Your task to perform on an android device: Search for vegetarian restaurants on Maps Image 0: 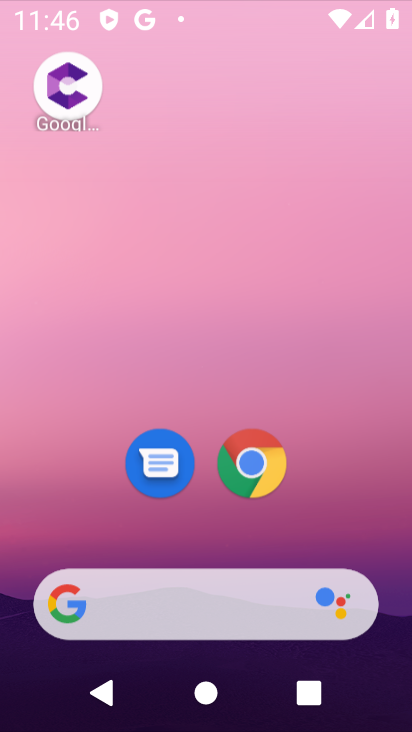
Step 0: drag from (227, 71) to (236, 23)
Your task to perform on an android device: Search for vegetarian restaurants on Maps Image 1: 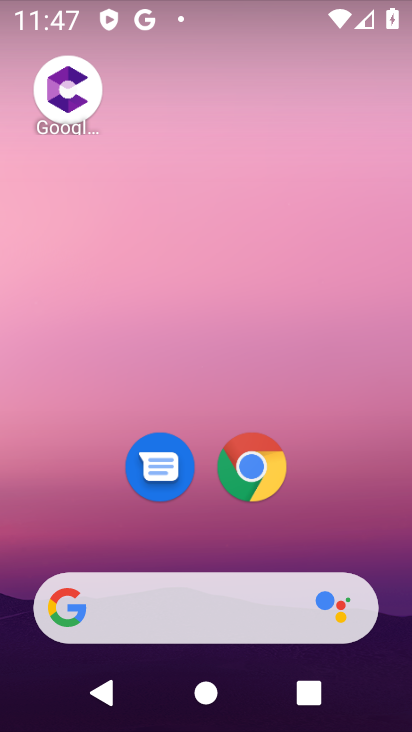
Step 1: drag from (86, 352) to (381, 451)
Your task to perform on an android device: Search for vegetarian restaurants on Maps Image 2: 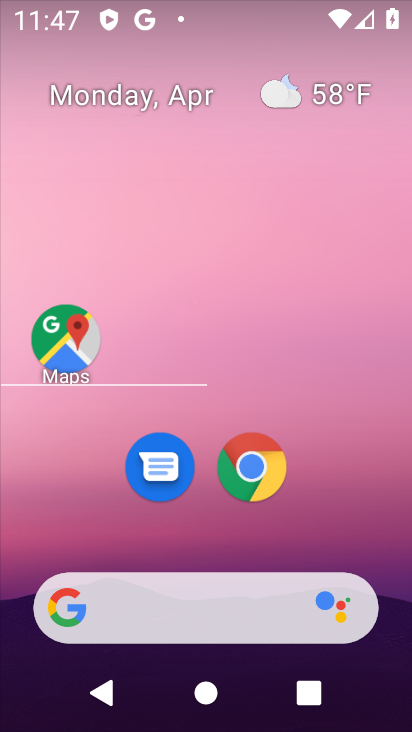
Step 2: drag from (59, 348) to (364, 450)
Your task to perform on an android device: Search for vegetarian restaurants on Maps Image 3: 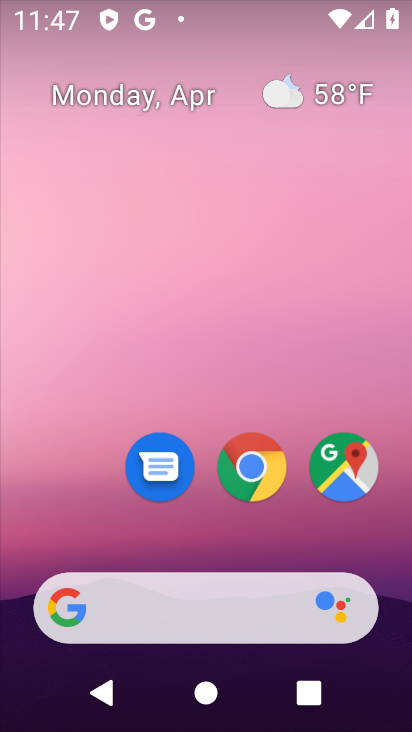
Step 3: drag from (26, 386) to (272, 337)
Your task to perform on an android device: Search for vegetarian restaurants on Maps Image 4: 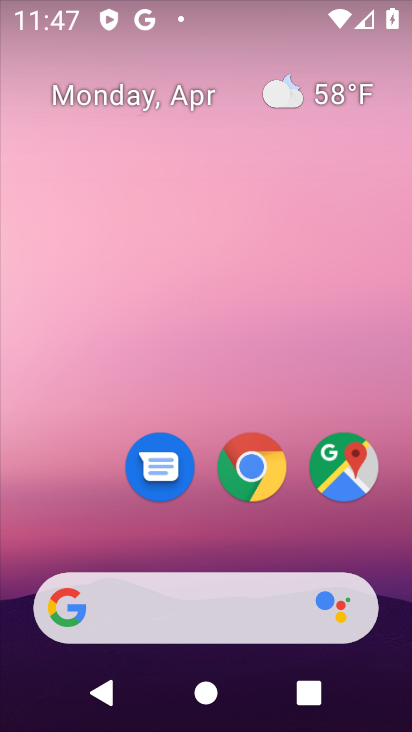
Step 4: click (335, 461)
Your task to perform on an android device: Search for vegetarian restaurants on Maps Image 5: 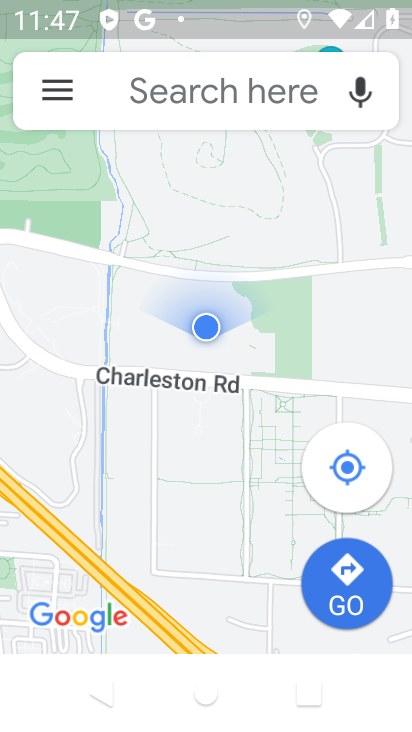
Step 5: click (210, 79)
Your task to perform on an android device: Search for vegetarian restaurants on Maps Image 6: 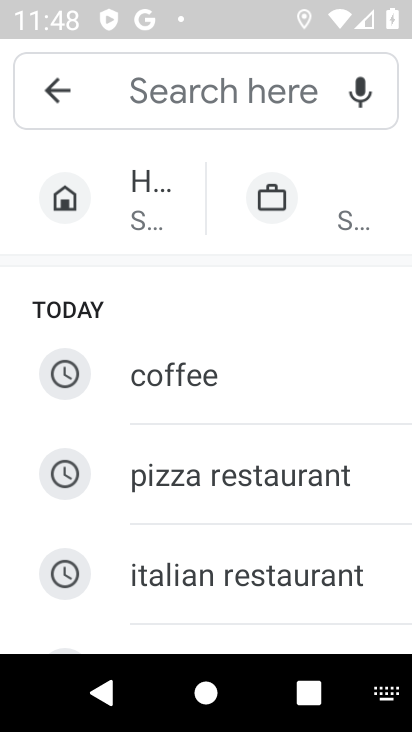
Step 6: type "vegetarian restaurant"
Your task to perform on an android device: Search for vegetarian restaurants on Maps Image 7: 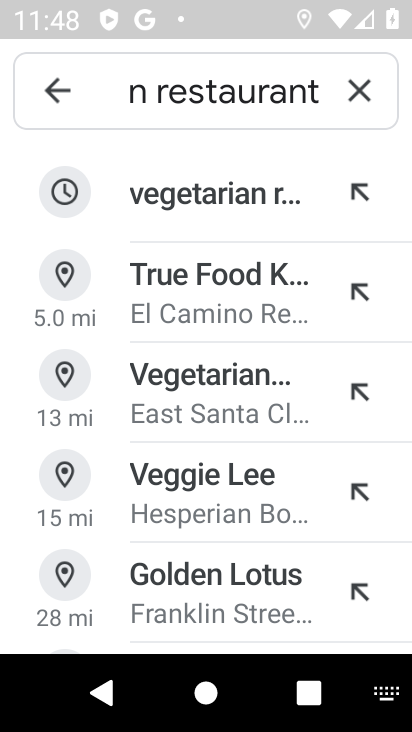
Step 7: click (196, 225)
Your task to perform on an android device: Search for vegetarian restaurants on Maps Image 8: 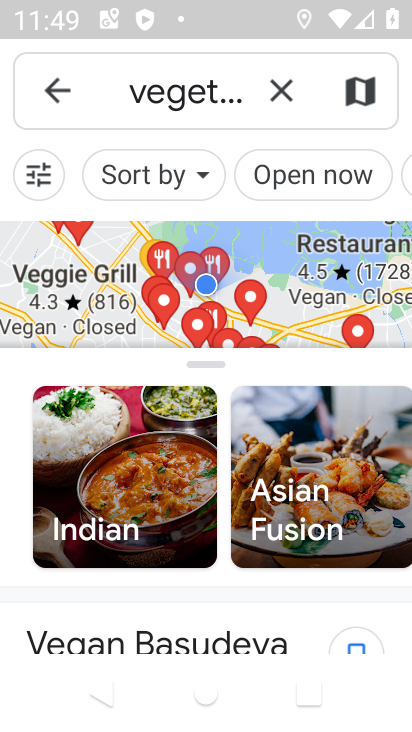
Step 8: task complete